Your task to perform on an android device: open app "ZOOM Cloud Meetings" (install if not already installed), go to login, and select forgot password Image 0: 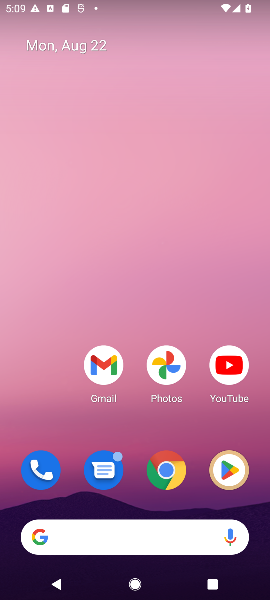
Step 0: drag from (140, 550) to (135, 110)
Your task to perform on an android device: open app "ZOOM Cloud Meetings" (install if not already installed), go to login, and select forgot password Image 1: 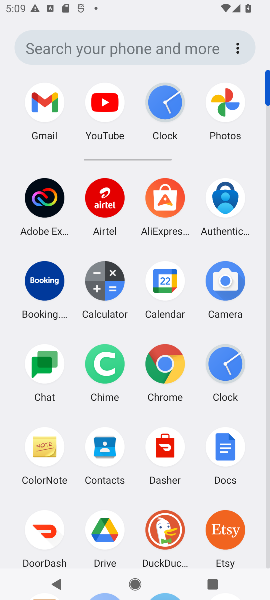
Step 1: drag from (126, 489) to (159, 83)
Your task to perform on an android device: open app "ZOOM Cloud Meetings" (install if not already installed), go to login, and select forgot password Image 2: 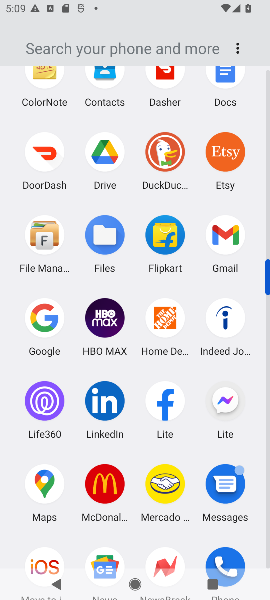
Step 2: drag from (125, 72) to (139, 470)
Your task to perform on an android device: open app "ZOOM Cloud Meetings" (install if not already installed), go to login, and select forgot password Image 3: 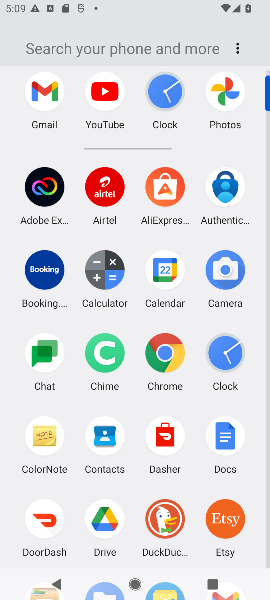
Step 3: click (118, 109)
Your task to perform on an android device: open app "ZOOM Cloud Meetings" (install if not already installed), go to login, and select forgot password Image 4: 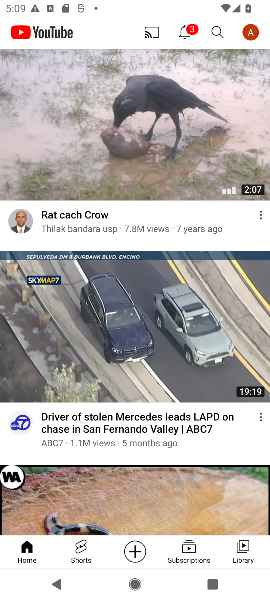
Step 4: press home button
Your task to perform on an android device: open app "ZOOM Cloud Meetings" (install if not already installed), go to login, and select forgot password Image 5: 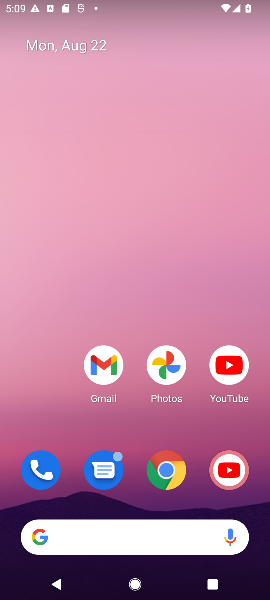
Step 5: drag from (91, 490) to (113, 105)
Your task to perform on an android device: open app "ZOOM Cloud Meetings" (install if not already installed), go to login, and select forgot password Image 6: 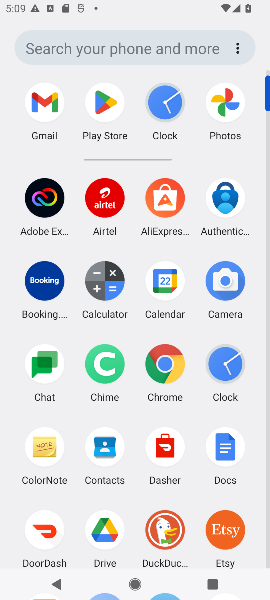
Step 6: click (100, 94)
Your task to perform on an android device: open app "ZOOM Cloud Meetings" (install if not already installed), go to login, and select forgot password Image 7: 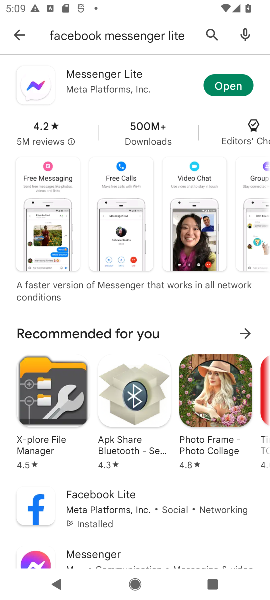
Step 7: click (20, 41)
Your task to perform on an android device: open app "ZOOM Cloud Meetings" (install if not already installed), go to login, and select forgot password Image 8: 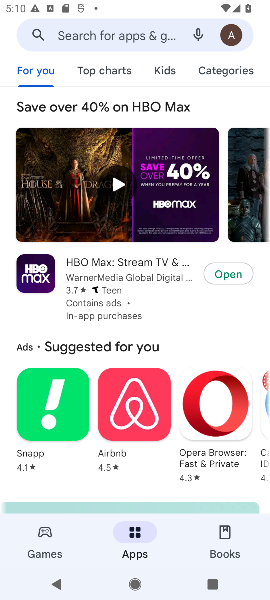
Step 8: click (120, 23)
Your task to perform on an android device: open app "ZOOM Cloud Meetings" (install if not already installed), go to login, and select forgot password Image 9: 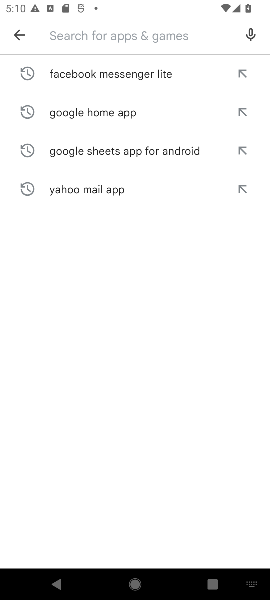
Step 9: type "ZOOM Cloud Meetings "
Your task to perform on an android device: open app "ZOOM Cloud Meetings" (install if not already installed), go to login, and select forgot password Image 10: 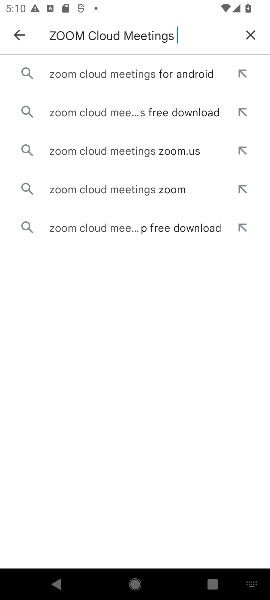
Step 10: click (102, 75)
Your task to perform on an android device: open app "ZOOM Cloud Meetings" (install if not already installed), go to login, and select forgot password Image 11: 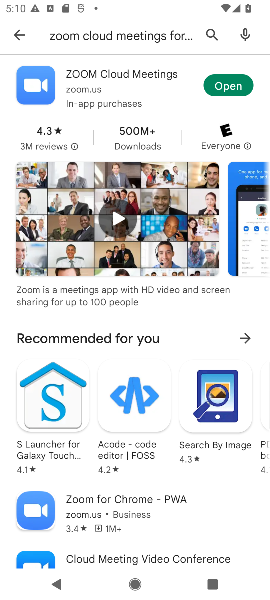
Step 11: click (227, 87)
Your task to perform on an android device: open app "ZOOM Cloud Meetings" (install if not already installed), go to login, and select forgot password Image 12: 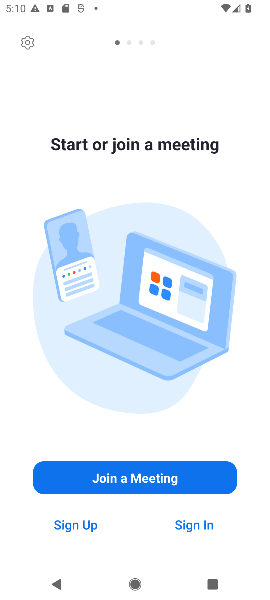
Step 12: task complete